Your task to perform on an android device: change the clock style Image 0: 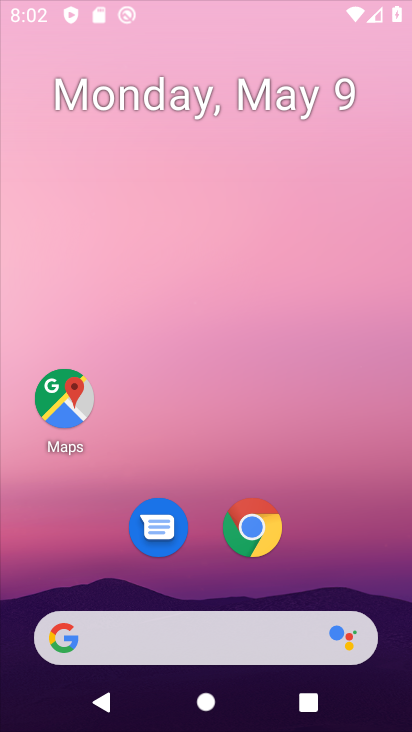
Step 0: press home button
Your task to perform on an android device: change the clock style Image 1: 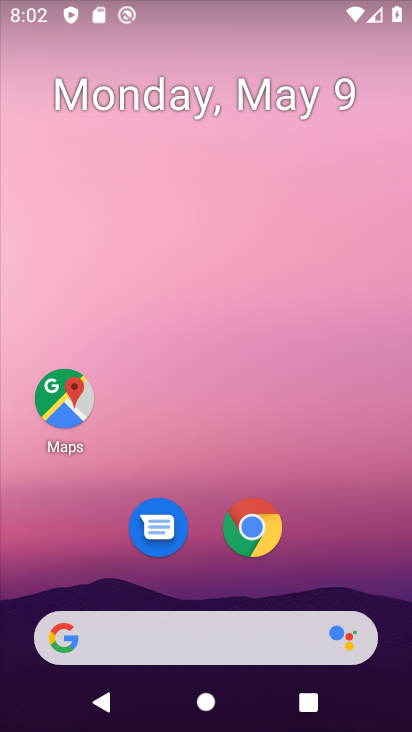
Step 1: drag from (214, 593) to (276, 97)
Your task to perform on an android device: change the clock style Image 2: 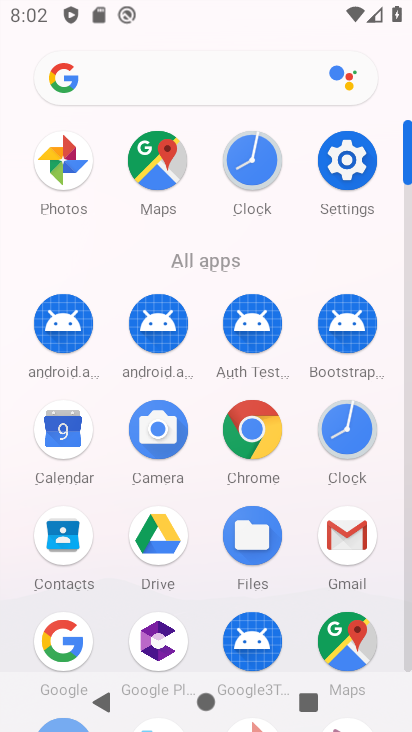
Step 2: click (344, 423)
Your task to perform on an android device: change the clock style Image 3: 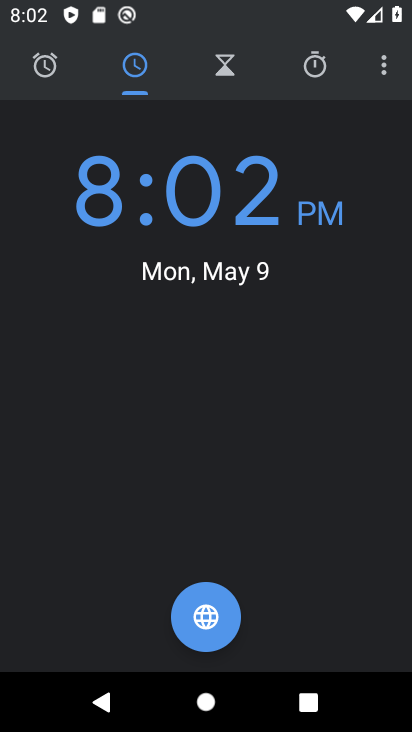
Step 3: click (384, 60)
Your task to perform on an android device: change the clock style Image 4: 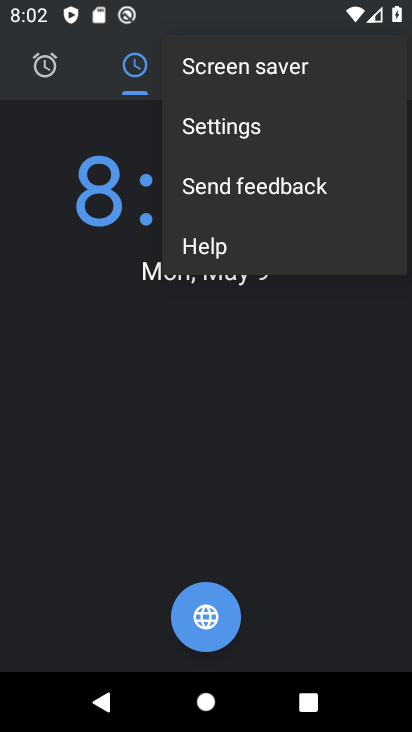
Step 4: click (268, 123)
Your task to perform on an android device: change the clock style Image 5: 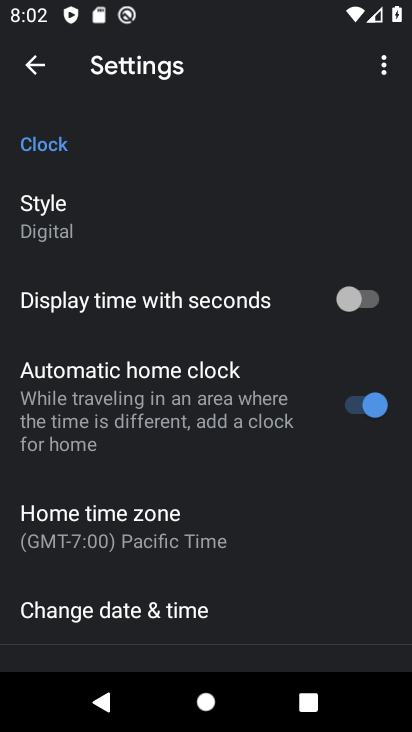
Step 5: click (74, 217)
Your task to perform on an android device: change the clock style Image 6: 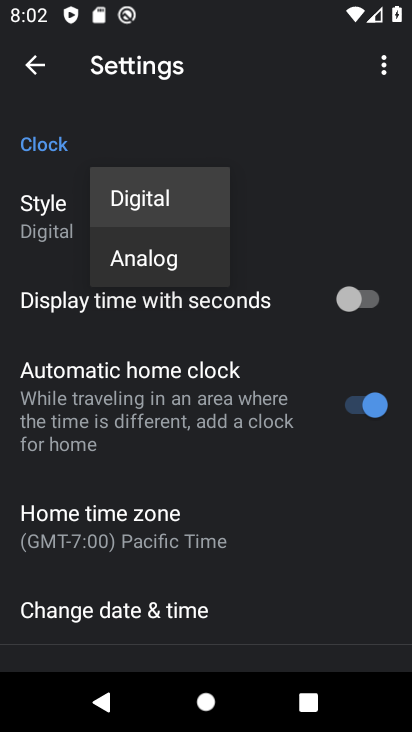
Step 6: click (161, 253)
Your task to perform on an android device: change the clock style Image 7: 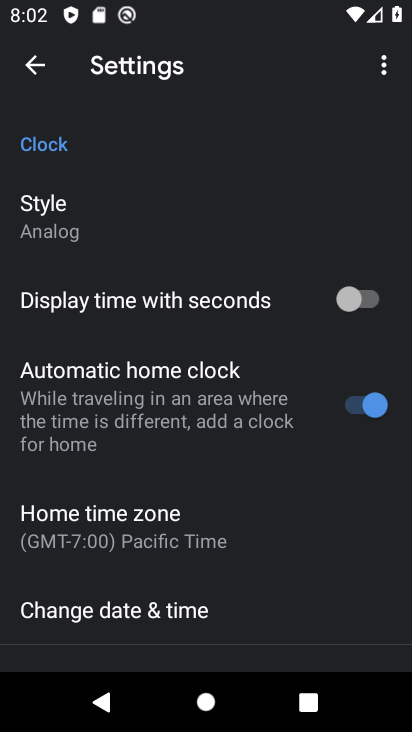
Step 7: task complete